Your task to perform on an android device: Do I have any events tomorrow? Image 0: 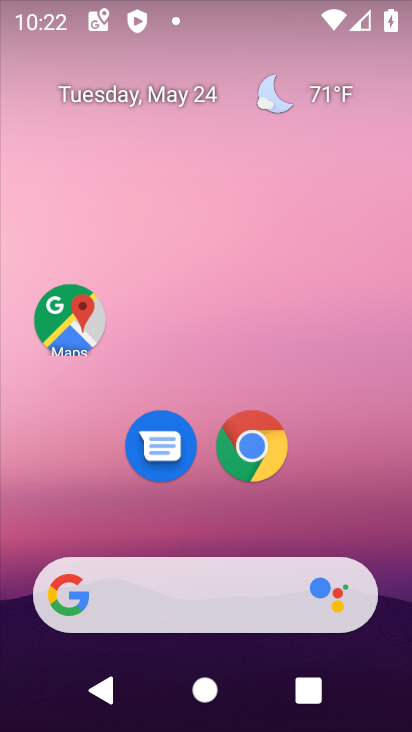
Step 0: drag from (350, 518) to (285, 211)
Your task to perform on an android device: Do I have any events tomorrow? Image 1: 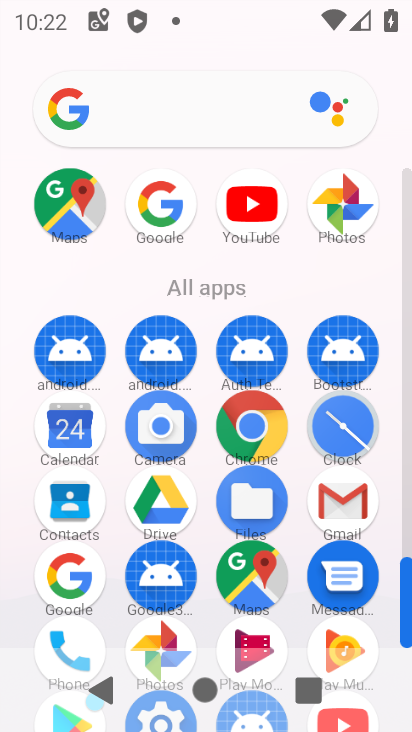
Step 1: click (69, 431)
Your task to perform on an android device: Do I have any events tomorrow? Image 2: 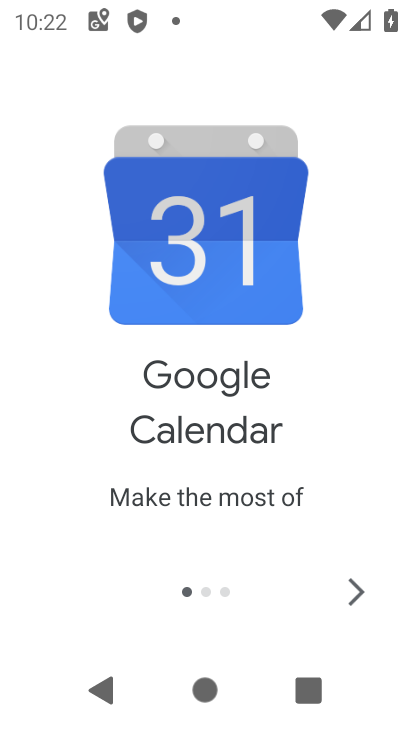
Step 2: click (69, 431)
Your task to perform on an android device: Do I have any events tomorrow? Image 3: 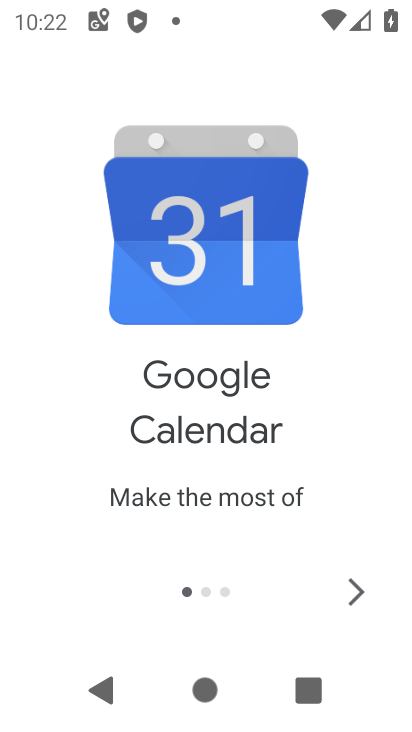
Step 3: click (361, 593)
Your task to perform on an android device: Do I have any events tomorrow? Image 4: 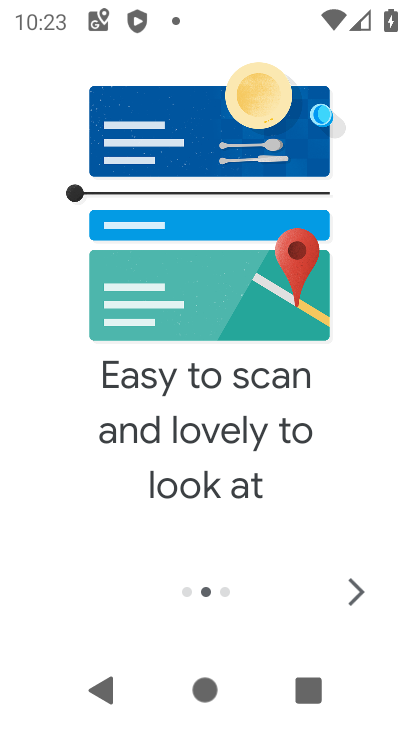
Step 4: click (361, 593)
Your task to perform on an android device: Do I have any events tomorrow? Image 5: 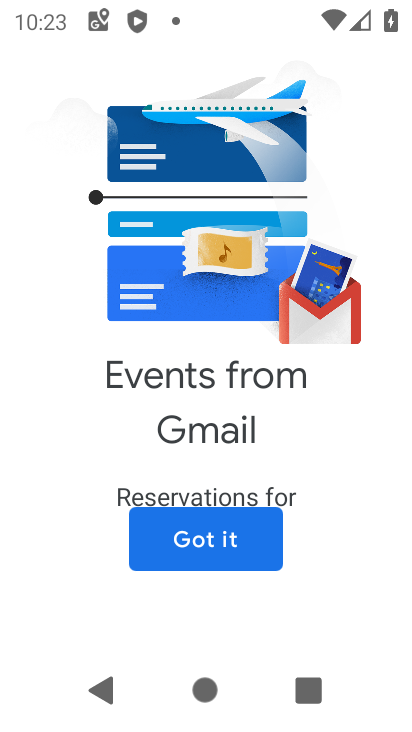
Step 5: click (223, 533)
Your task to perform on an android device: Do I have any events tomorrow? Image 6: 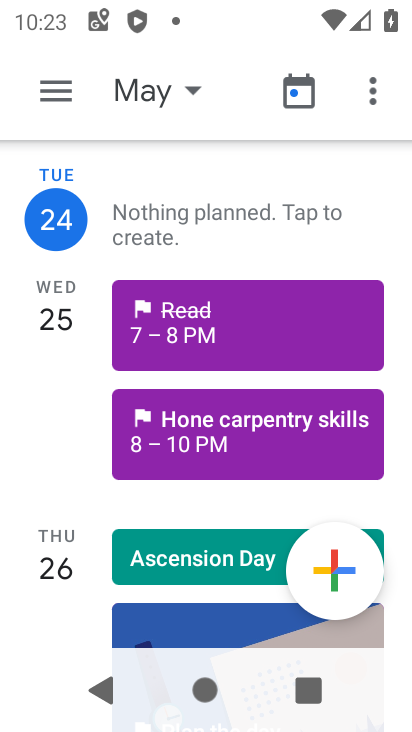
Step 6: click (195, 86)
Your task to perform on an android device: Do I have any events tomorrow? Image 7: 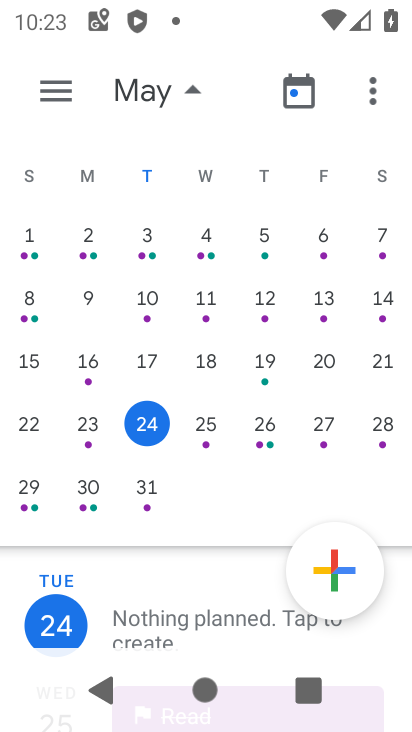
Step 7: click (210, 423)
Your task to perform on an android device: Do I have any events tomorrow? Image 8: 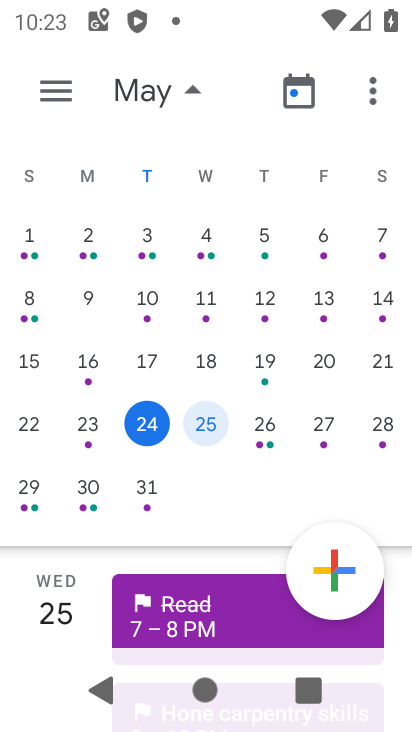
Step 8: click (46, 80)
Your task to perform on an android device: Do I have any events tomorrow? Image 9: 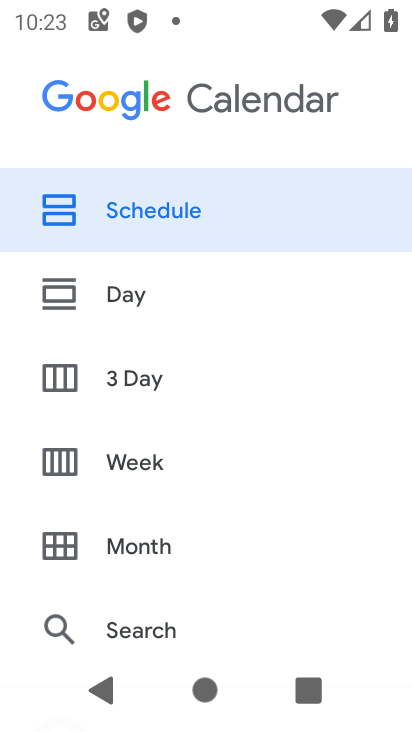
Step 9: click (119, 206)
Your task to perform on an android device: Do I have any events tomorrow? Image 10: 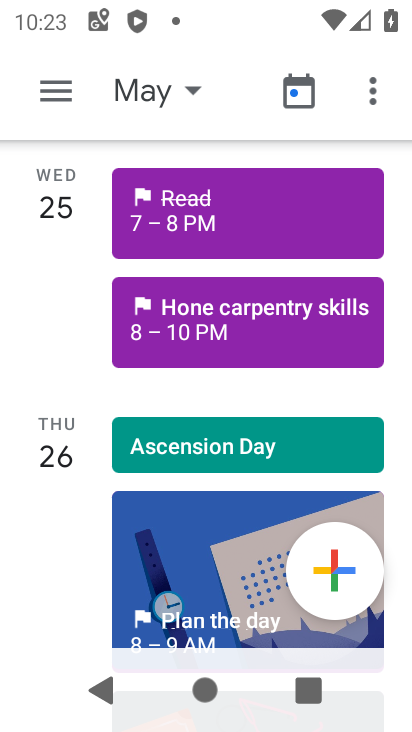
Step 10: task complete